Your task to perform on an android device: all mails in gmail Image 0: 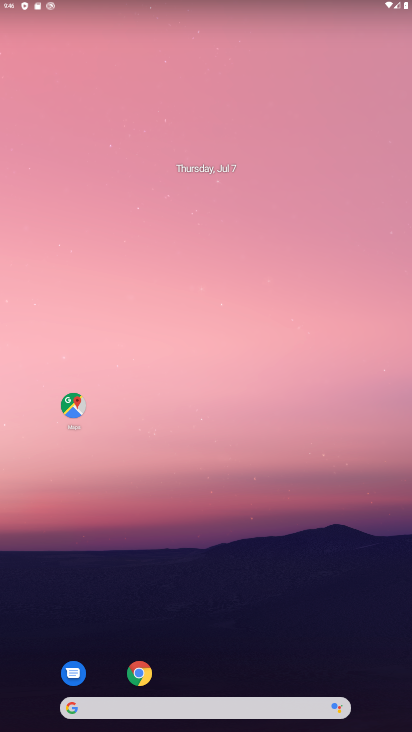
Step 0: drag from (249, 685) to (328, 198)
Your task to perform on an android device: all mails in gmail Image 1: 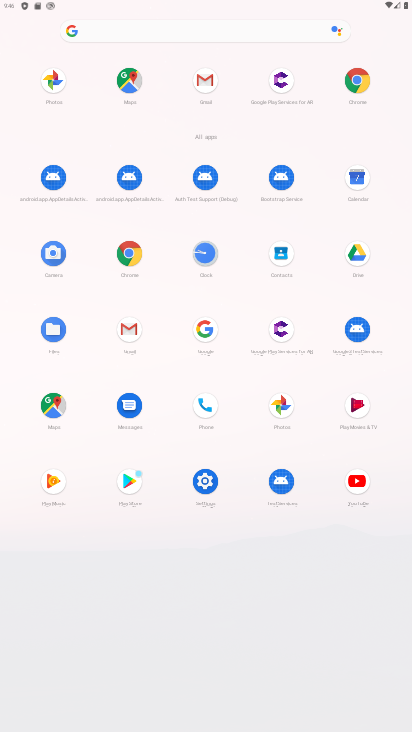
Step 1: click (195, 82)
Your task to perform on an android device: all mails in gmail Image 2: 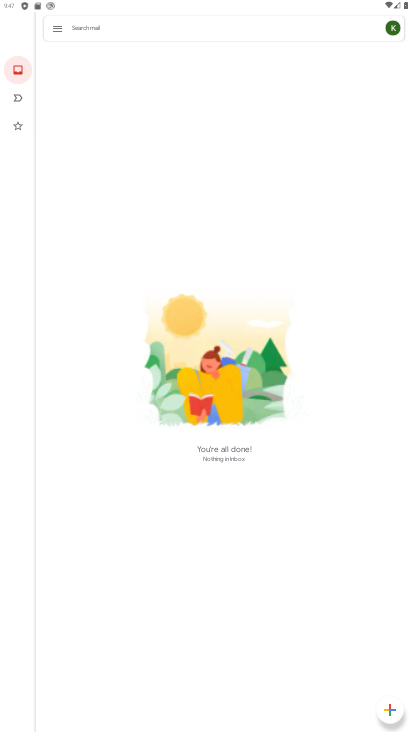
Step 2: click (63, 36)
Your task to perform on an android device: all mails in gmail Image 3: 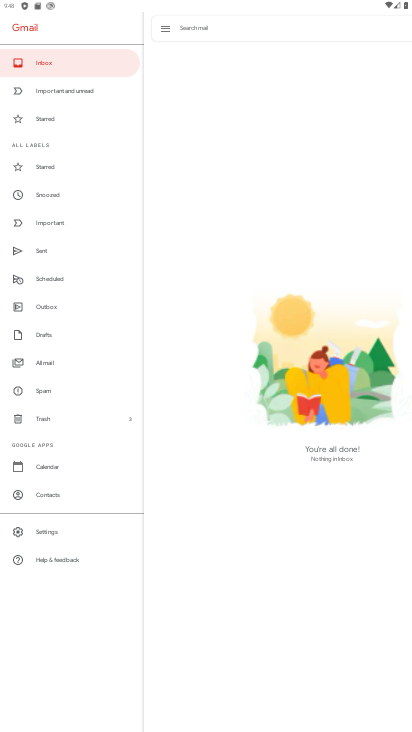
Step 3: click (34, 367)
Your task to perform on an android device: all mails in gmail Image 4: 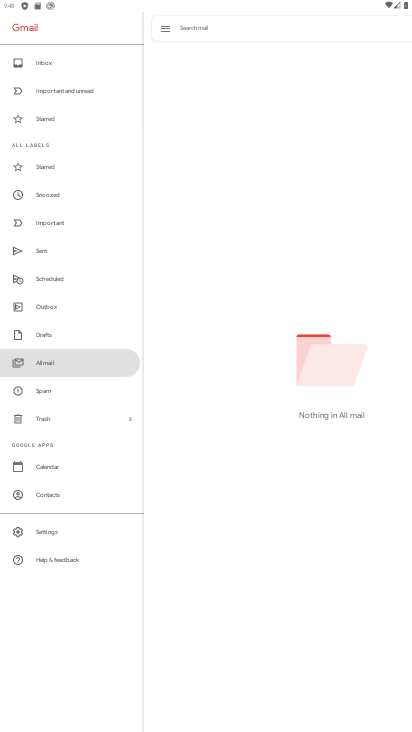
Step 4: task complete